Your task to perform on an android device: open a new tab in the chrome app Image 0: 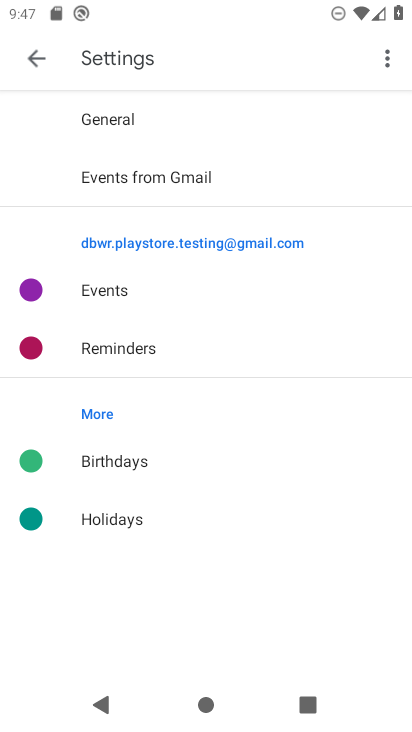
Step 0: press home button
Your task to perform on an android device: open a new tab in the chrome app Image 1: 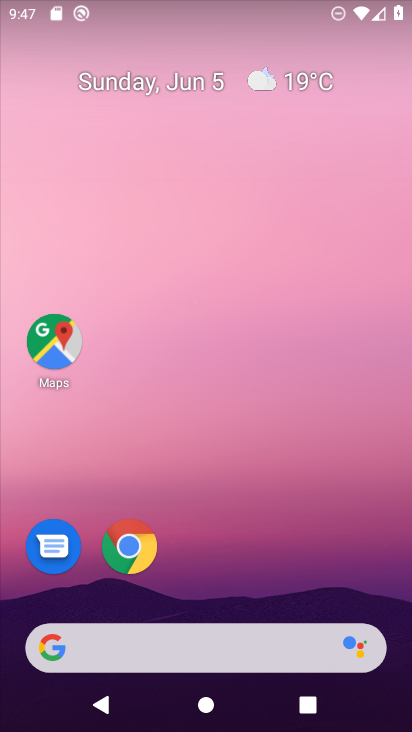
Step 1: click (129, 566)
Your task to perform on an android device: open a new tab in the chrome app Image 2: 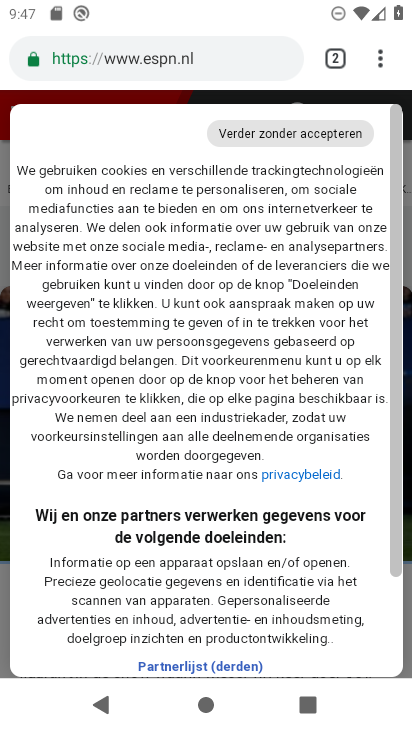
Step 2: click (343, 66)
Your task to perform on an android device: open a new tab in the chrome app Image 3: 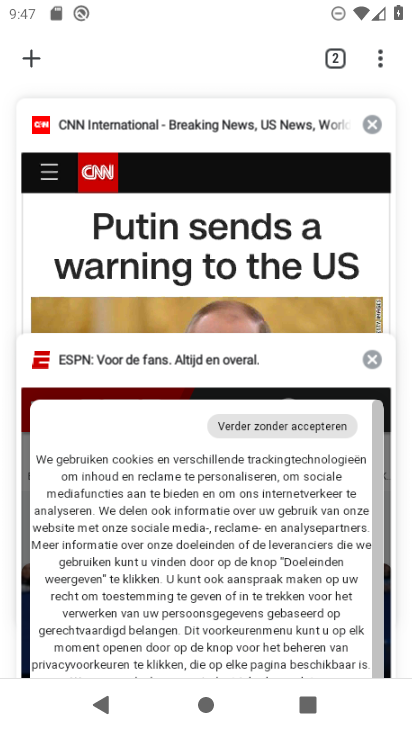
Step 3: click (32, 58)
Your task to perform on an android device: open a new tab in the chrome app Image 4: 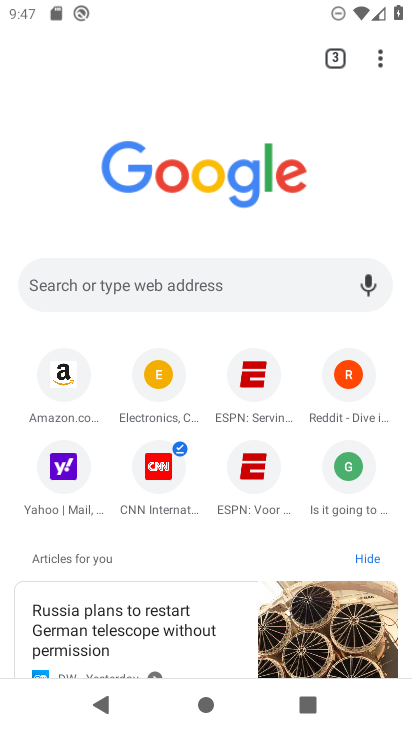
Step 4: task complete